Your task to perform on an android device: turn vacation reply on in the gmail app Image 0: 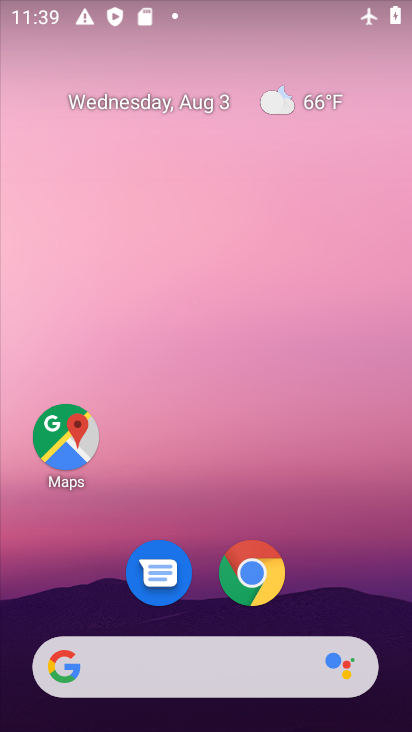
Step 0: drag from (297, 572) to (273, 150)
Your task to perform on an android device: turn vacation reply on in the gmail app Image 1: 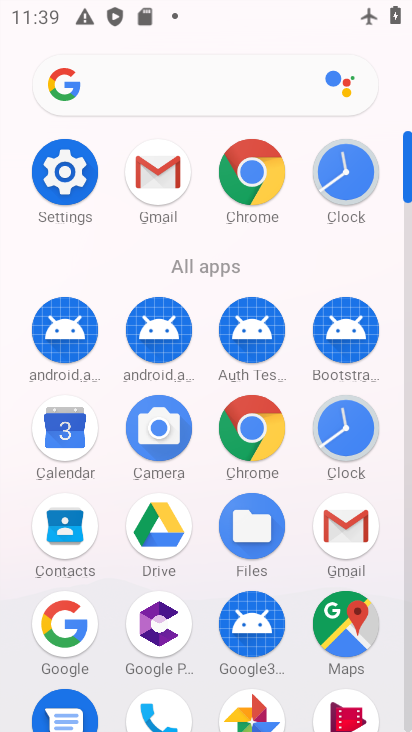
Step 1: click (81, 159)
Your task to perform on an android device: turn vacation reply on in the gmail app Image 2: 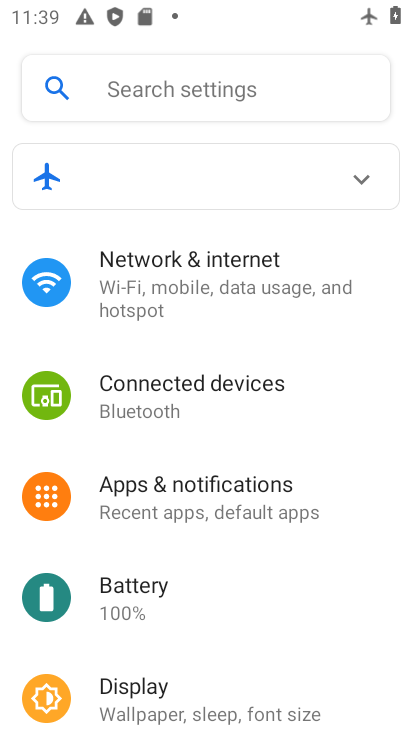
Step 2: drag from (272, 583) to (291, 119)
Your task to perform on an android device: turn vacation reply on in the gmail app Image 3: 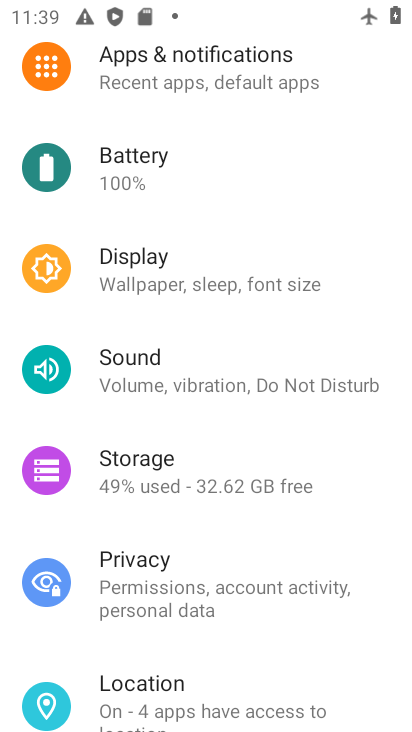
Step 3: drag from (248, 525) to (275, 117)
Your task to perform on an android device: turn vacation reply on in the gmail app Image 4: 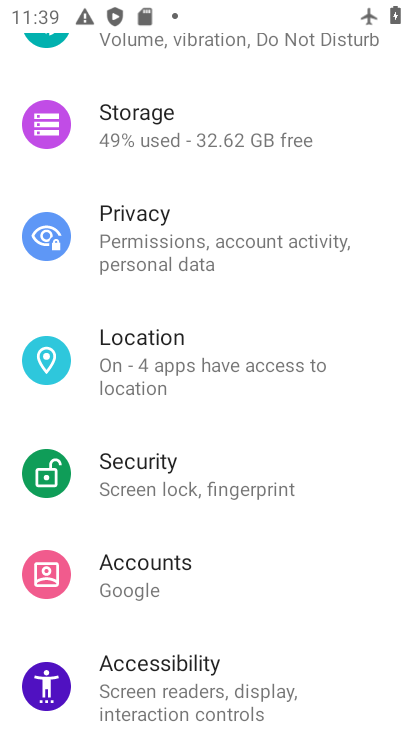
Step 4: drag from (259, 187) to (232, 592)
Your task to perform on an android device: turn vacation reply on in the gmail app Image 5: 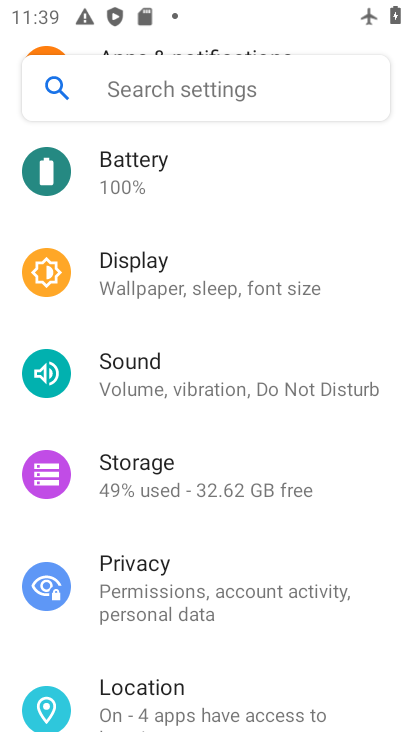
Step 5: drag from (212, 206) to (244, 530)
Your task to perform on an android device: turn vacation reply on in the gmail app Image 6: 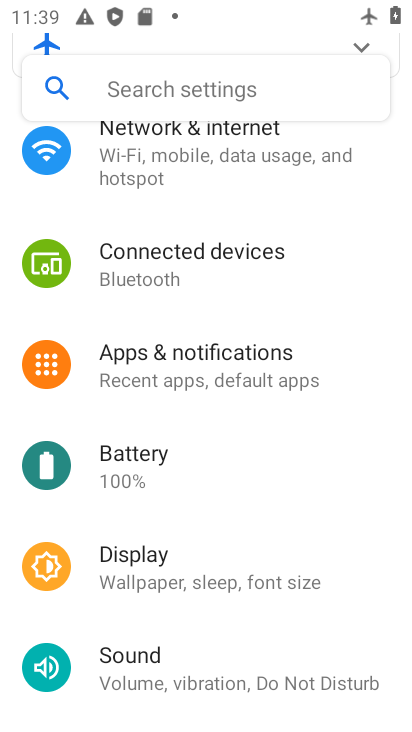
Step 6: press home button
Your task to perform on an android device: turn vacation reply on in the gmail app Image 7: 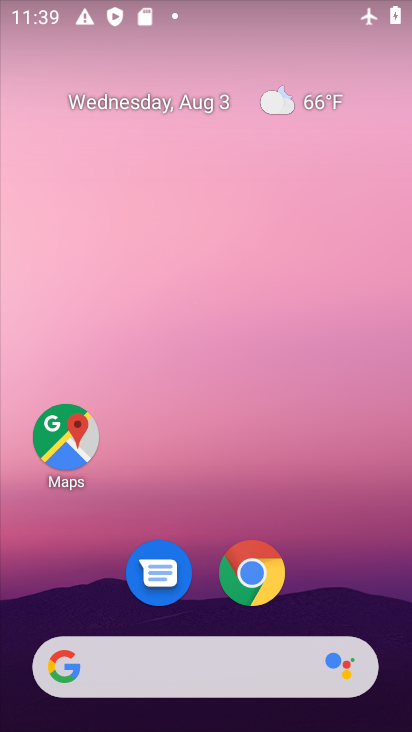
Step 7: drag from (357, 567) to (352, 100)
Your task to perform on an android device: turn vacation reply on in the gmail app Image 8: 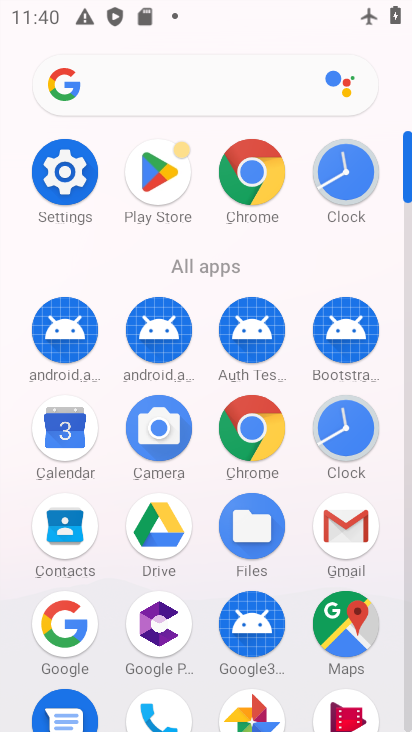
Step 8: click (350, 536)
Your task to perform on an android device: turn vacation reply on in the gmail app Image 9: 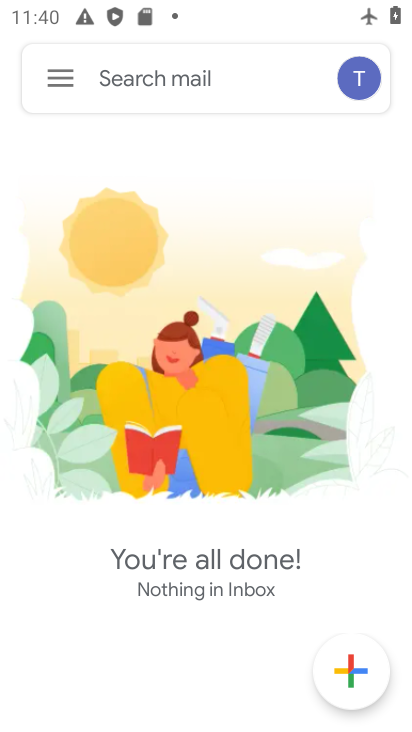
Step 9: click (67, 75)
Your task to perform on an android device: turn vacation reply on in the gmail app Image 10: 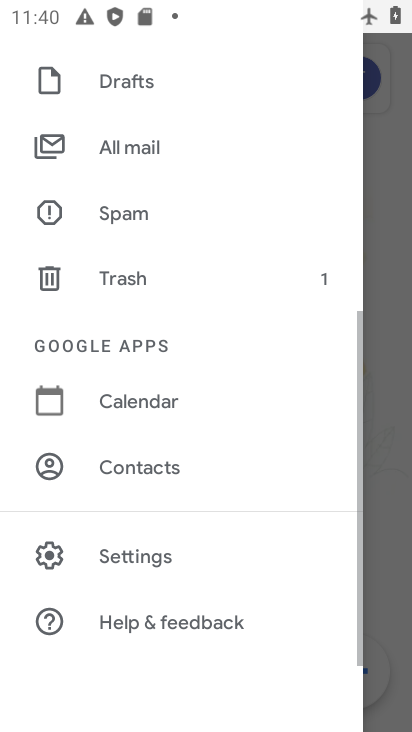
Step 10: click (150, 551)
Your task to perform on an android device: turn vacation reply on in the gmail app Image 11: 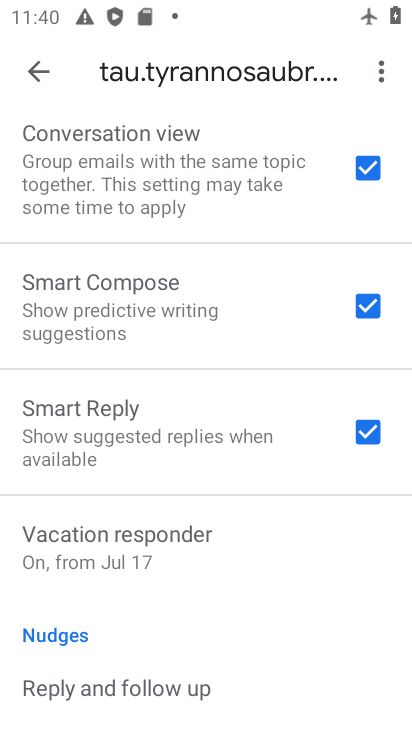
Step 11: drag from (276, 604) to (250, 145)
Your task to perform on an android device: turn vacation reply on in the gmail app Image 12: 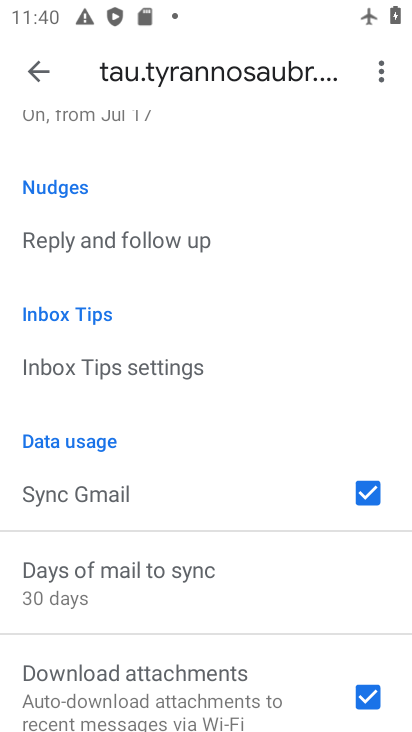
Step 12: drag from (149, 182) to (169, 450)
Your task to perform on an android device: turn vacation reply on in the gmail app Image 13: 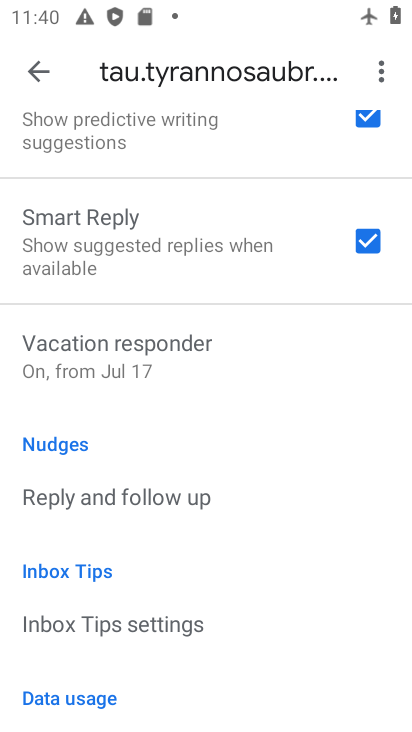
Step 13: click (135, 364)
Your task to perform on an android device: turn vacation reply on in the gmail app Image 14: 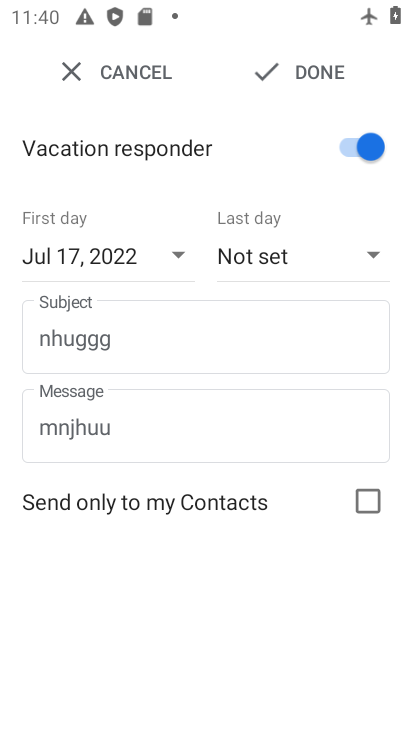
Step 14: task complete